Your task to perform on an android device: Go to settings Image 0: 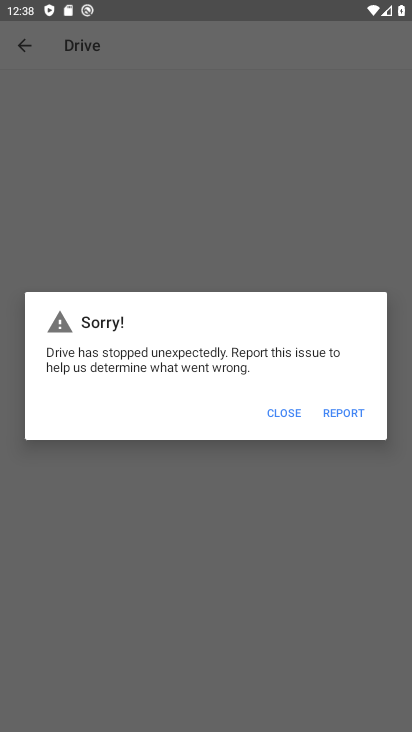
Step 0: press home button
Your task to perform on an android device: Go to settings Image 1: 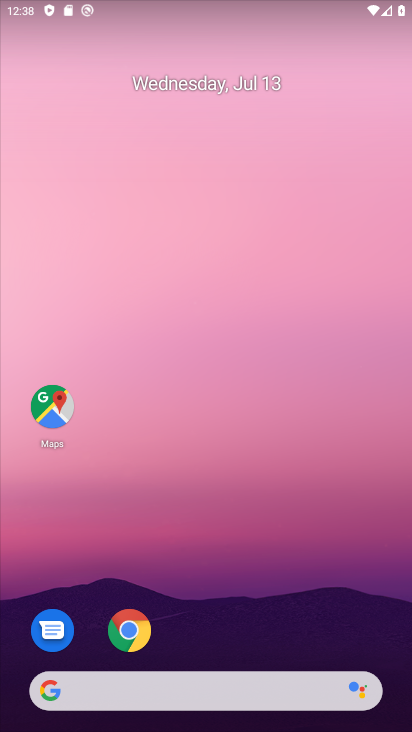
Step 1: drag from (28, 697) to (278, 2)
Your task to perform on an android device: Go to settings Image 2: 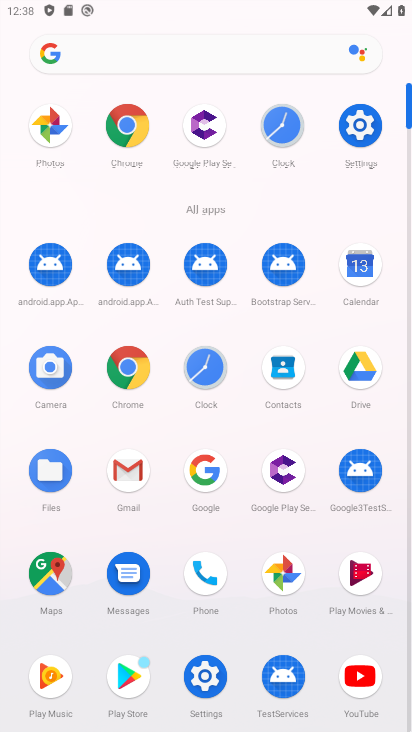
Step 2: click (206, 676)
Your task to perform on an android device: Go to settings Image 3: 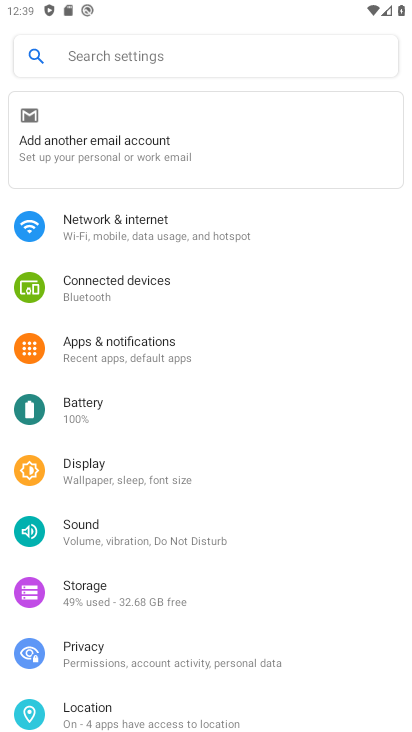
Step 3: task complete